Your task to perform on an android device: turn on the 12-hour format for clock Image 0: 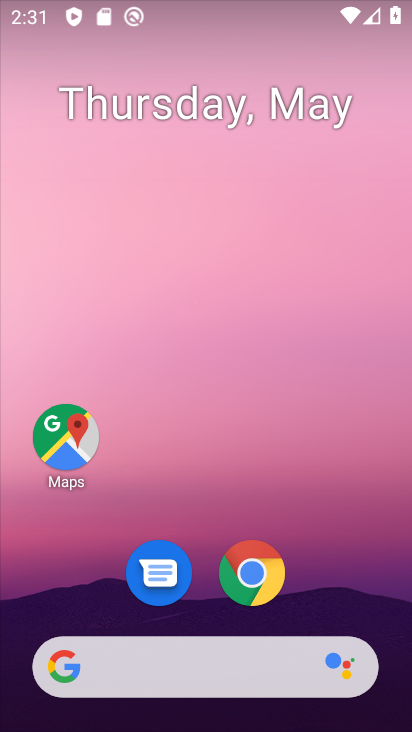
Step 0: click (203, 371)
Your task to perform on an android device: turn on the 12-hour format for clock Image 1: 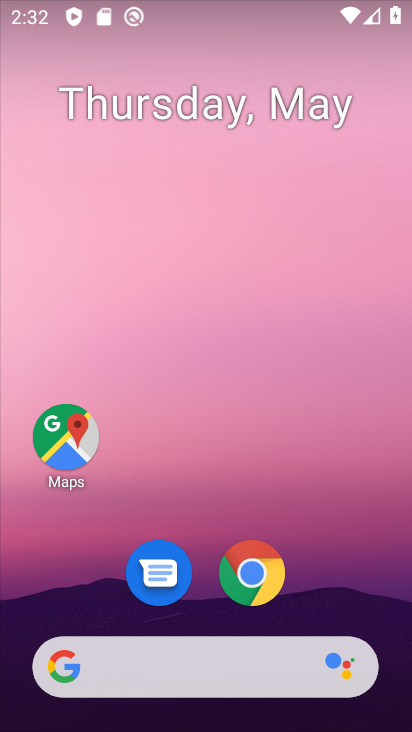
Step 1: drag from (242, 631) to (284, 284)
Your task to perform on an android device: turn on the 12-hour format for clock Image 2: 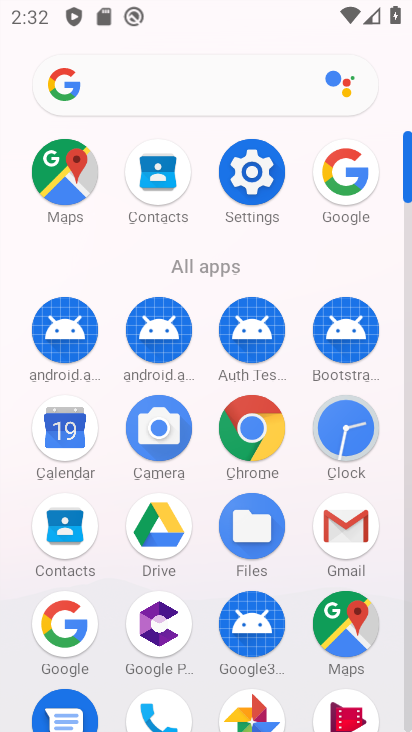
Step 2: click (260, 179)
Your task to perform on an android device: turn on the 12-hour format for clock Image 3: 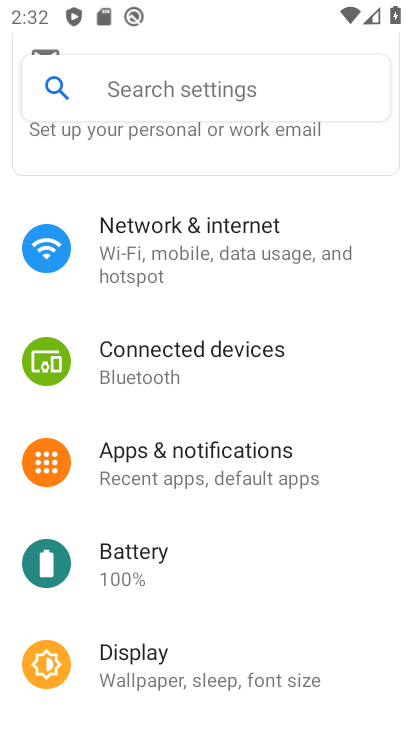
Step 3: press back button
Your task to perform on an android device: turn on the 12-hour format for clock Image 4: 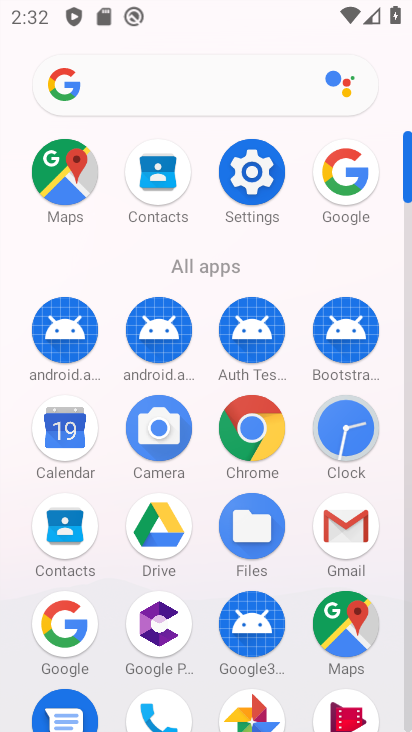
Step 4: click (337, 434)
Your task to perform on an android device: turn on the 12-hour format for clock Image 5: 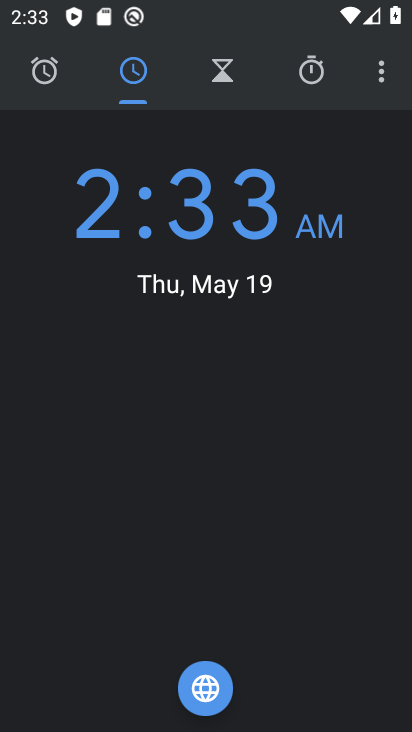
Step 5: click (381, 75)
Your task to perform on an android device: turn on the 12-hour format for clock Image 6: 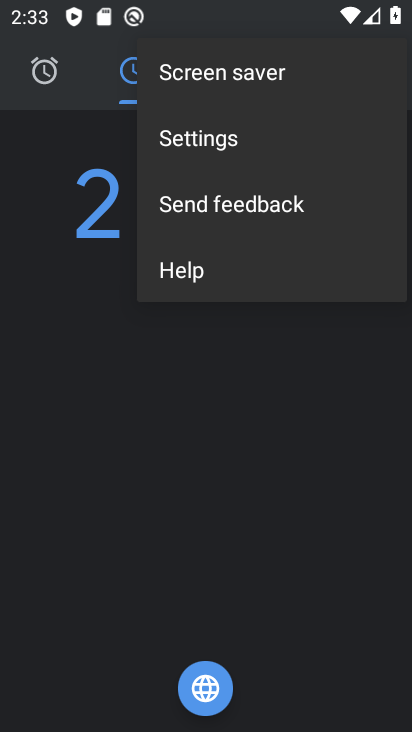
Step 6: click (214, 142)
Your task to perform on an android device: turn on the 12-hour format for clock Image 7: 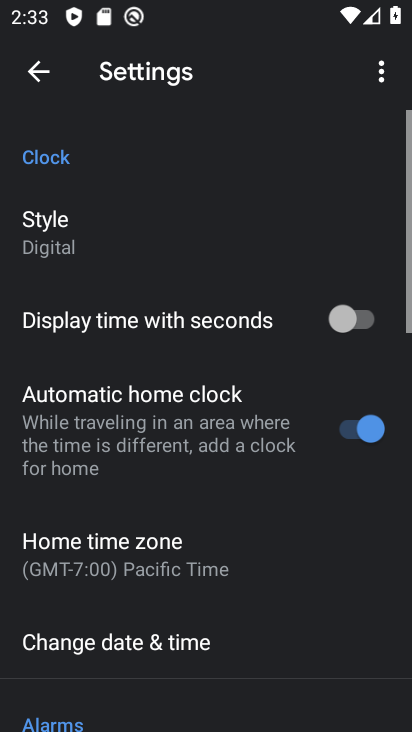
Step 7: drag from (133, 663) to (160, 336)
Your task to perform on an android device: turn on the 12-hour format for clock Image 8: 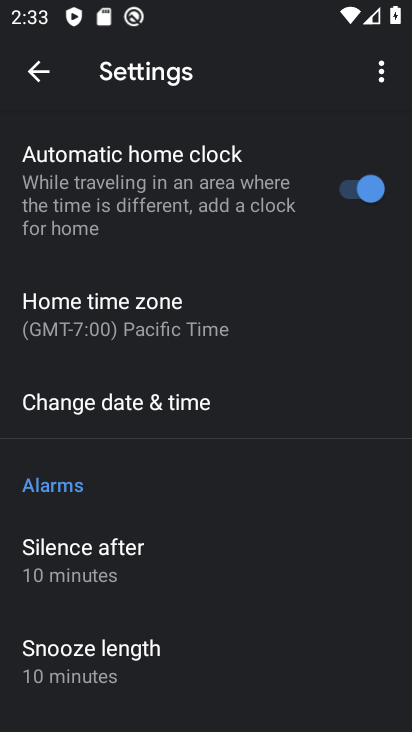
Step 8: click (148, 413)
Your task to perform on an android device: turn on the 12-hour format for clock Image 9: 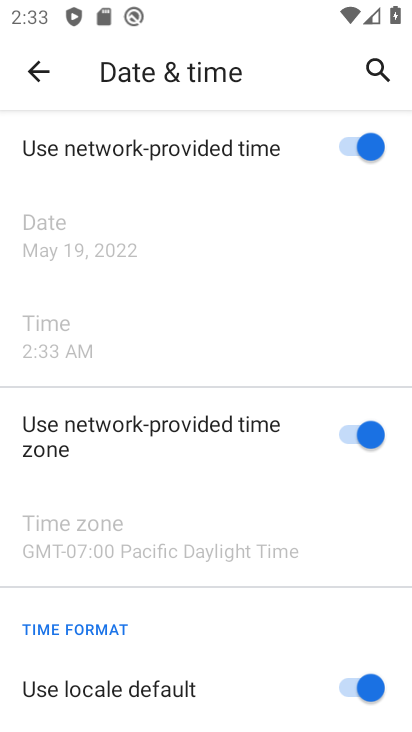
Step 9: task complete